Your task to perform on an android device: visit the assistant section in the google photos Image 0: 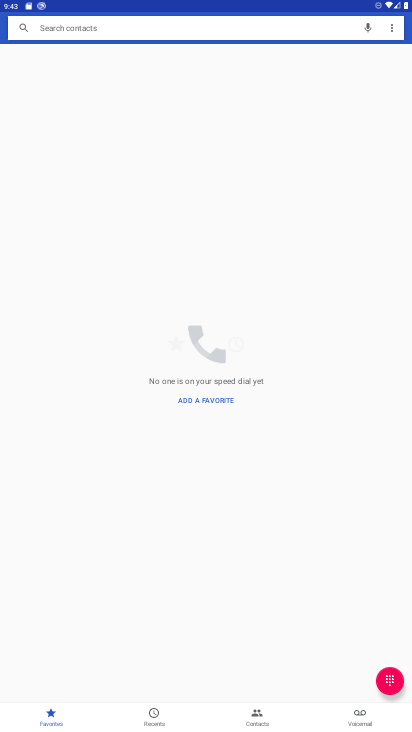
Step 0: press home button
Your task to perform on an android device: visit the assistant section in the google photos Image 1: 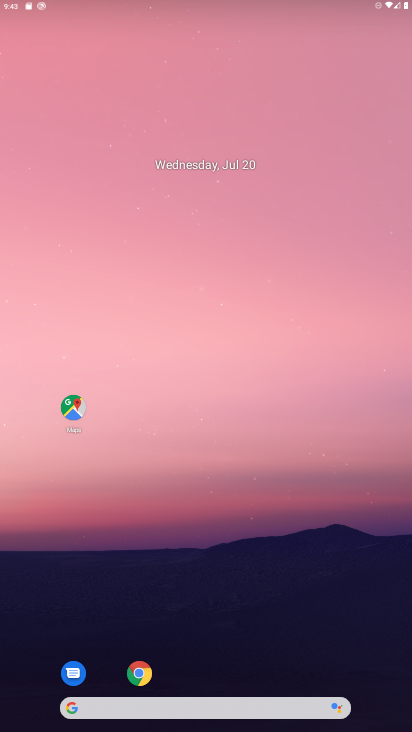
Step 1: drag from (199, 527) to (200, 8)
Your task to perform on an android device: visit the assistant section in the google photos Image 2: 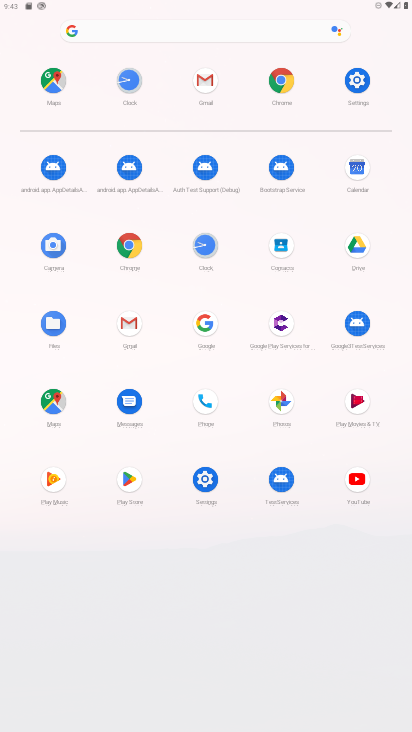
Step 2: click (274, 395)
Your task to perform on an android device: visit the assistant section in the google photos Image 3: 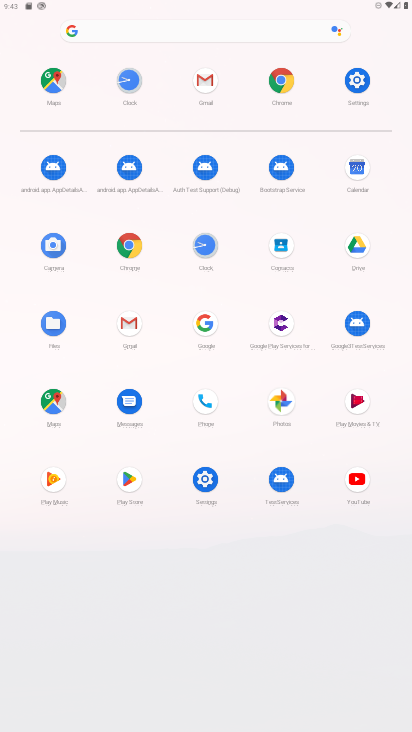
Step 3: click (274, 395)
Your task to perform on an android device: visit the assistant section in the google photos Image 4: 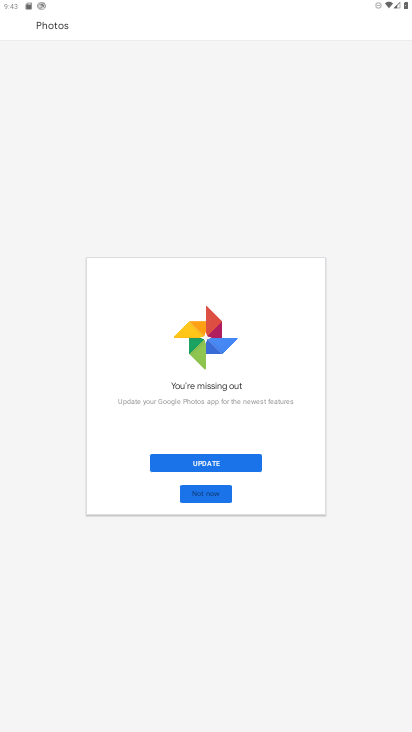
Step 4: click (186, 490)
Your task to perform on an android device: visit the assistant section in the google photos Image 5: 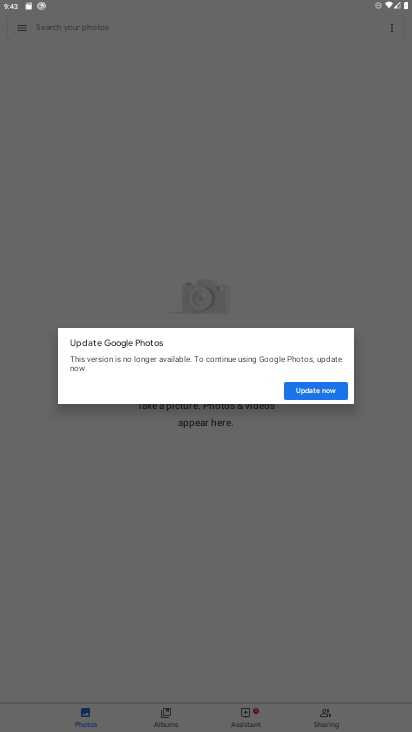
Step 5: click (312, 386)
Your task to perform on an android device: visit the assistant section in the google photos Image 6: 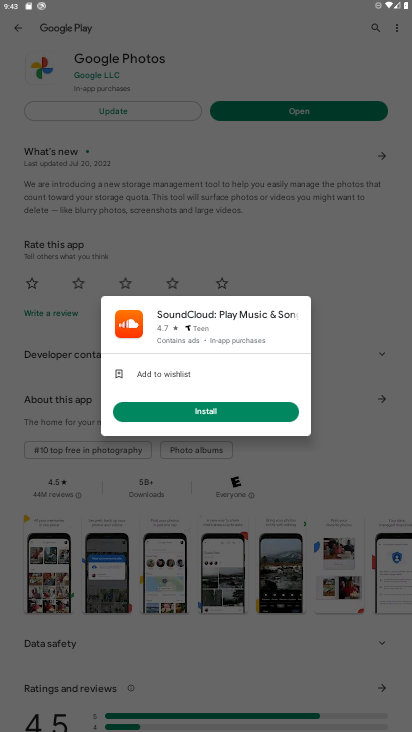
Step 6: press home button
Your task to perform on an android device: visit the assistant section in the google photos Image 7: 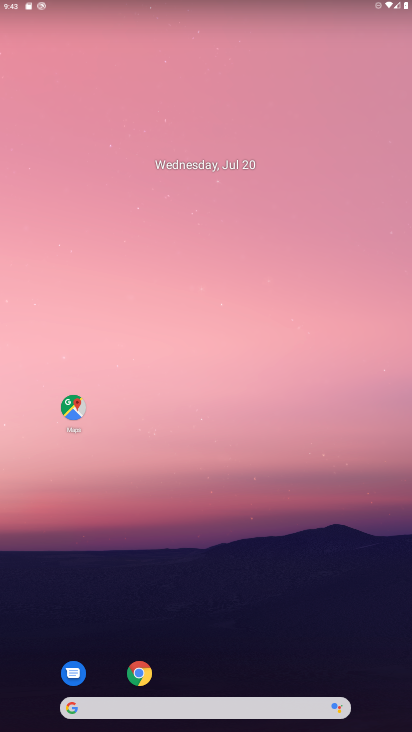
Step 7: drag from (209, 644) to (261, 83)
Your task to perform on an android device: visit the assistant section in the google photos Image 8: 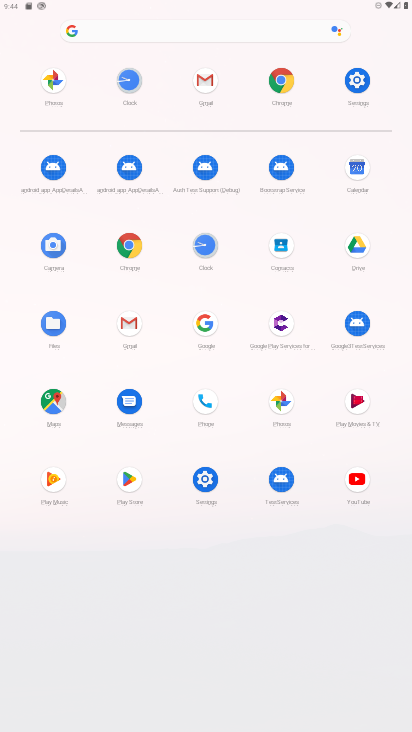
Step 8: click (280, 403)
Your task to perform on an android device: visit the assistant section in the google photos Image 9: 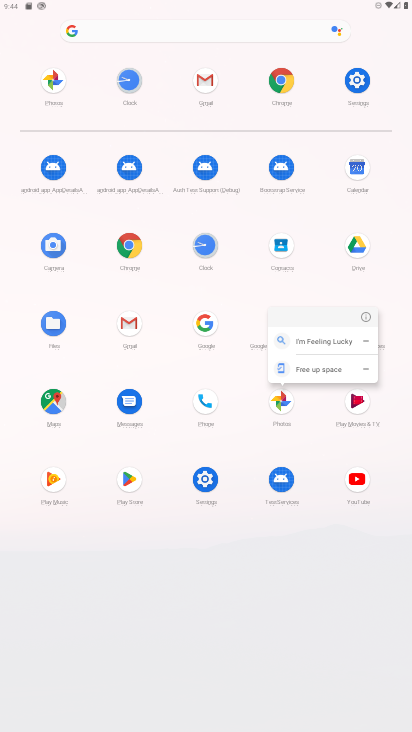
Step 9: click (364, 321)
Your task to perform on an android device: visit the assistant section in the google photos Image 10: 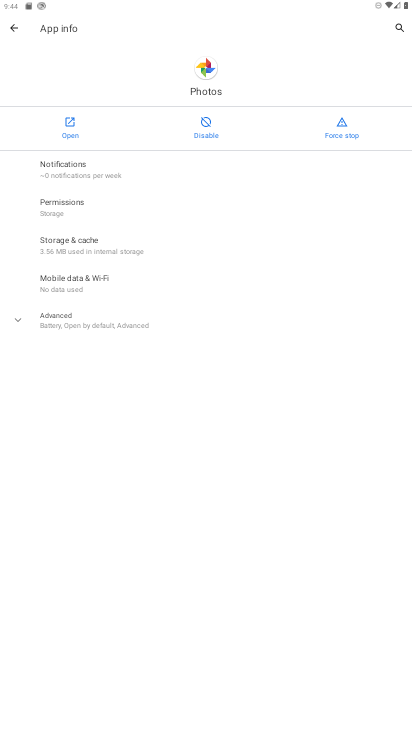
Step 10: click (75, 125)
Your task to perform on an android device: visit the assistant section in the google photos Image 11: 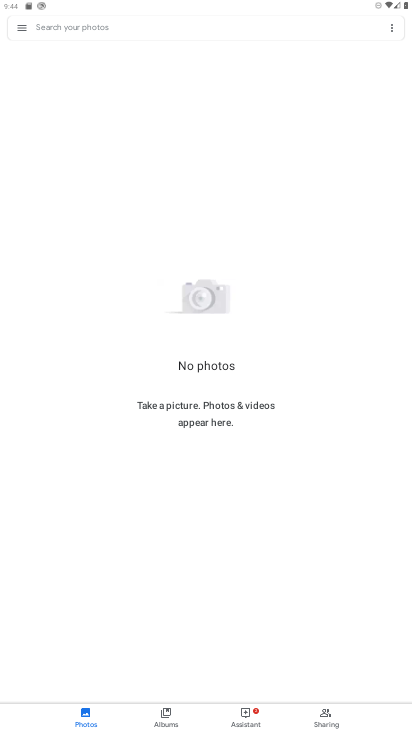
Step 11: click (245, 711)
Your task to perform on an android device: visit the assistant section in the google photos Image 12: 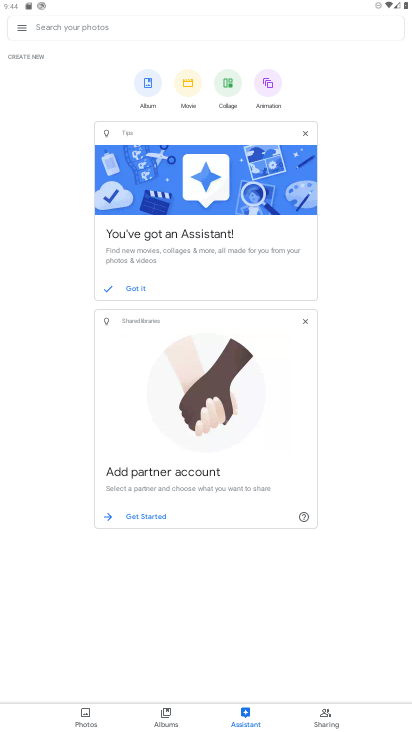
Step 12: task complete